Your task to perform on an android device: Go to Reddit.com Image 0: 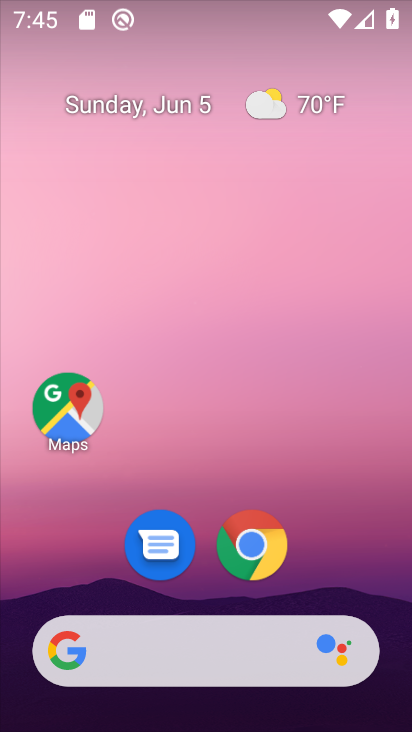
Step 0: drag from (228, 574) to (230, 258)
Your task to perform on an android device: Go to Reddit.com Image 1: 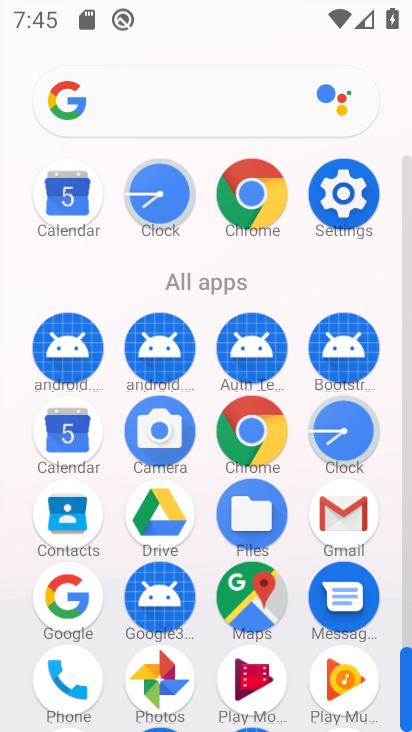
Step 1: click (262, 219)
Your task to perform on an android device: Go to Reddit.com Image 2: 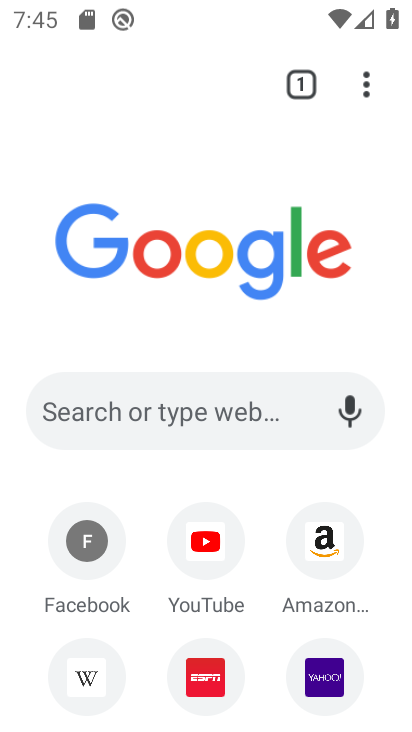
Step 2: drag from (200, 606) to (207, 328)
Your task to perform on an android device: Go to Reddit.com Image 3: 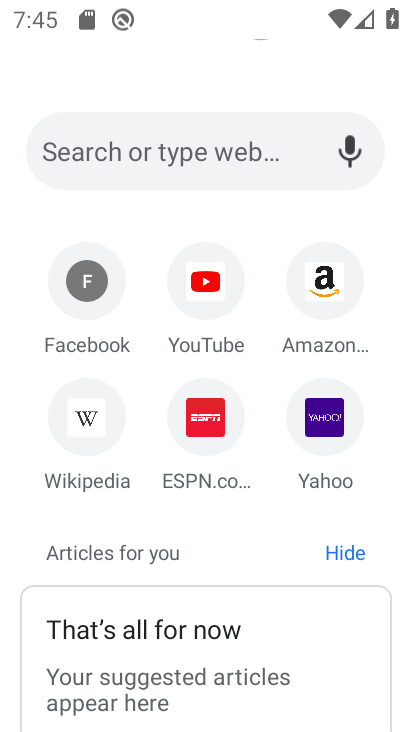
Step 3: click (188, 142)
Your task to perform on an android device: Go to Reddit.com Image 4: 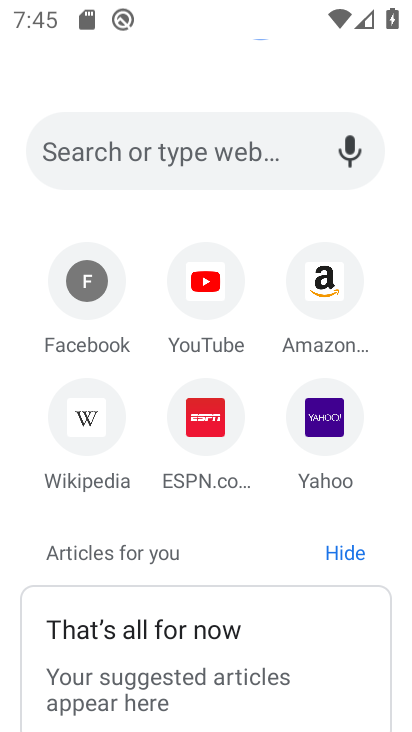
Step 4: click (187, 156)
Your task to perform on an android device: Go to Reddit.com Image 5: 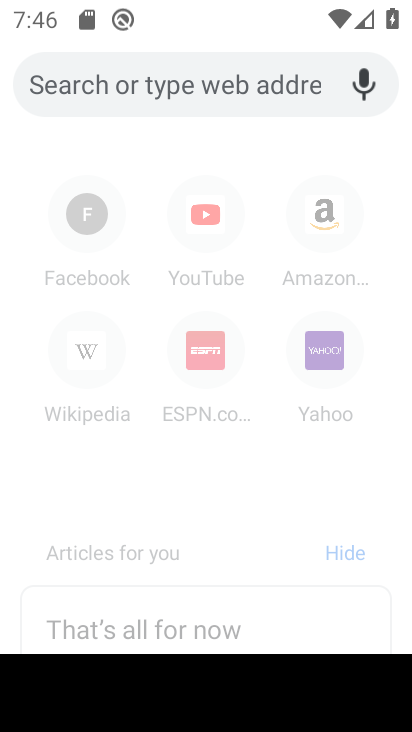
Step 5: type "reddit"
Your task to perform on an android device: Go to Reddit.com Image 6: 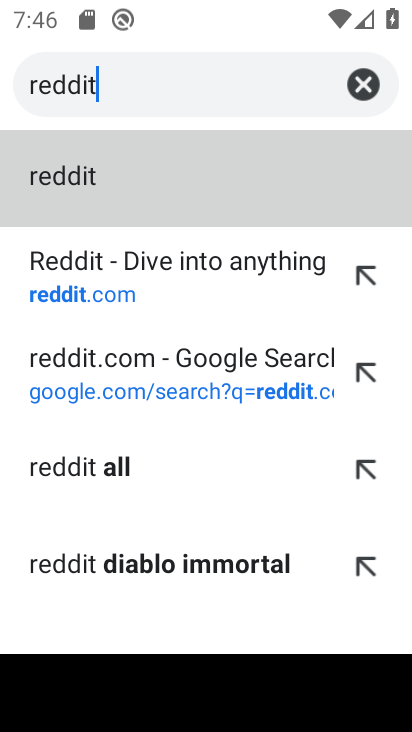
Step 6: click (176, 278)
Your task to perform on an android device: Go to Reddit.com Image 7: 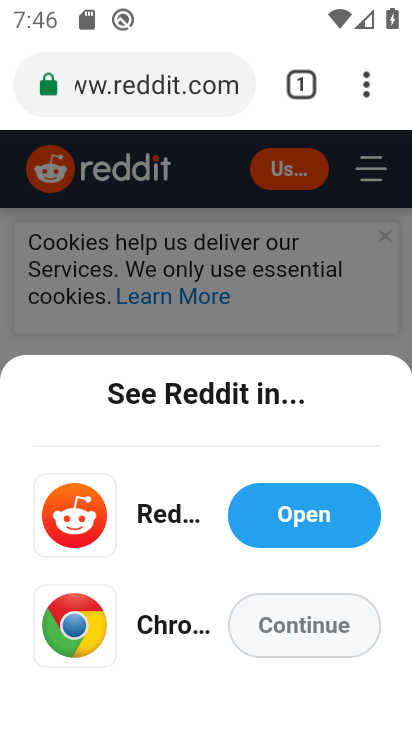
Step 7: task complete